Your task to perform on an android device: open a new tab in the chrome app Image 0: 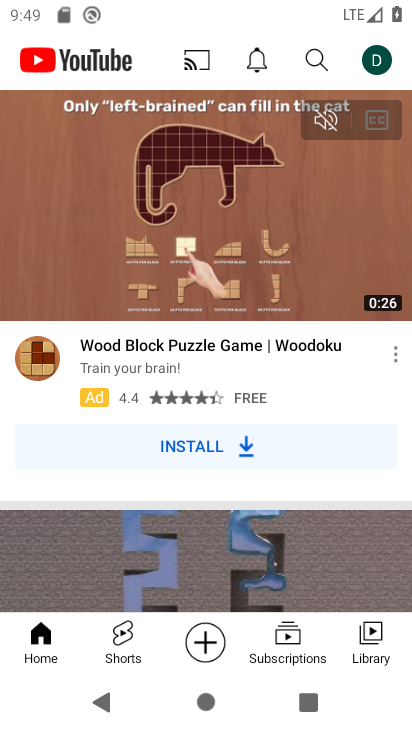
Step 0: press home button
Your task to perform on an android device: open a new tab in the chrome app Image 1: 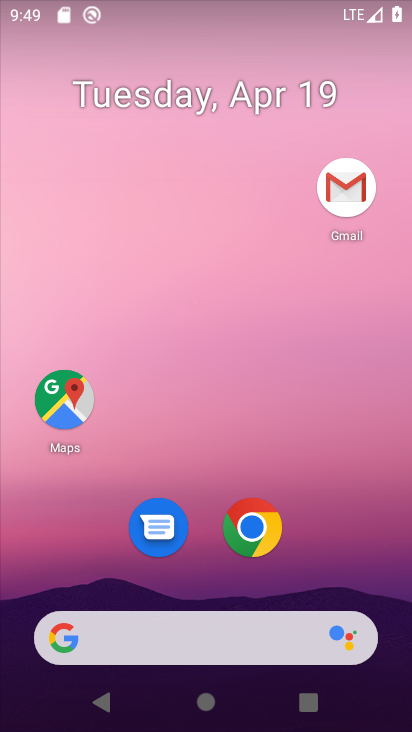
Step 1: click (266, 534)
Your task to perform on an android device: open a new tab in the chrome app Image 2: 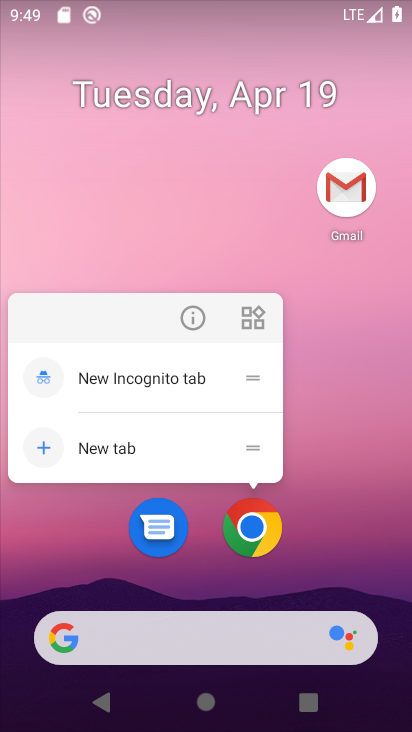
Step 2: click (263, 533)
Your task to perform on an android device: open a new tab in the chrome app Image 3: 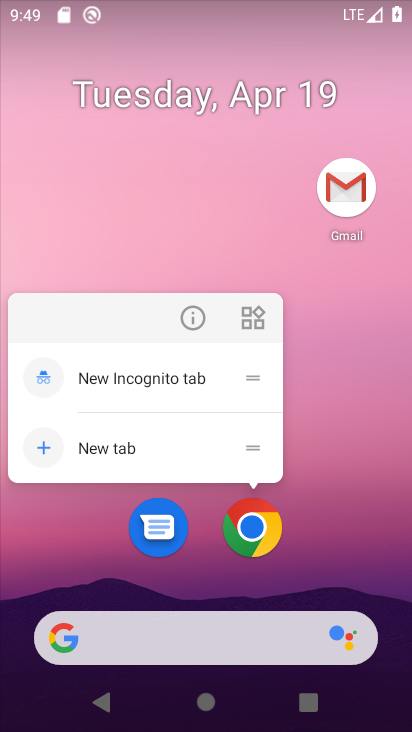
Step 3: click (260, 534)
Your task to perform on an android device: open a new tab in the chrome app Image 4: 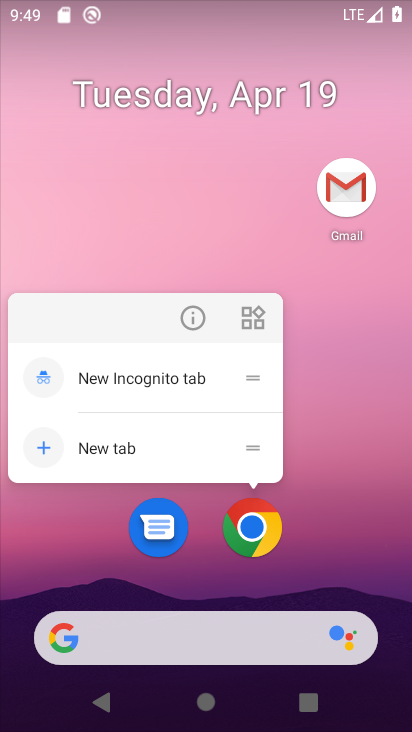
Step 4: click (276, 534)
Your task to perform on an android device: open a new tab in the chrome app Image 5: 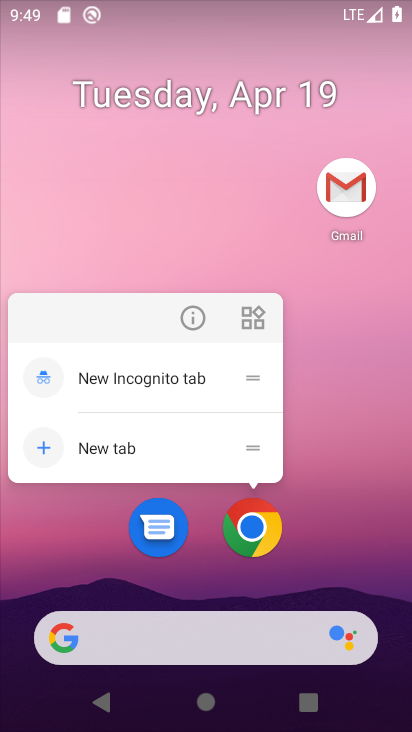
Step 5: click (275, 532)
Your task to perform on an android device: open a new tab in the chrome app Image 6: 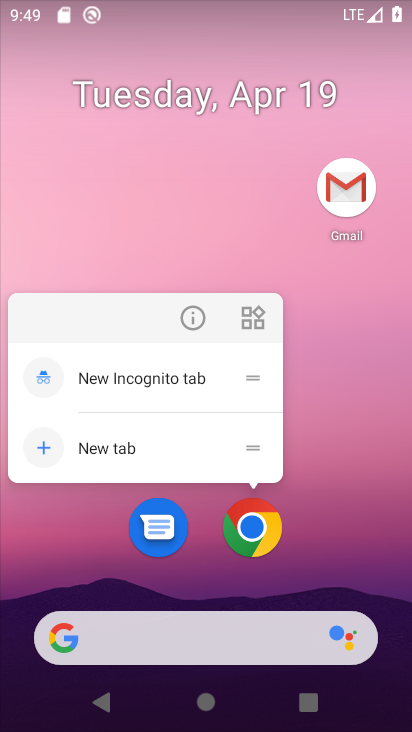
Step 6: drag from (375, 582) to (348, 164)
Your task to perform on an android device: open a new tab in the chrome app Image 7: 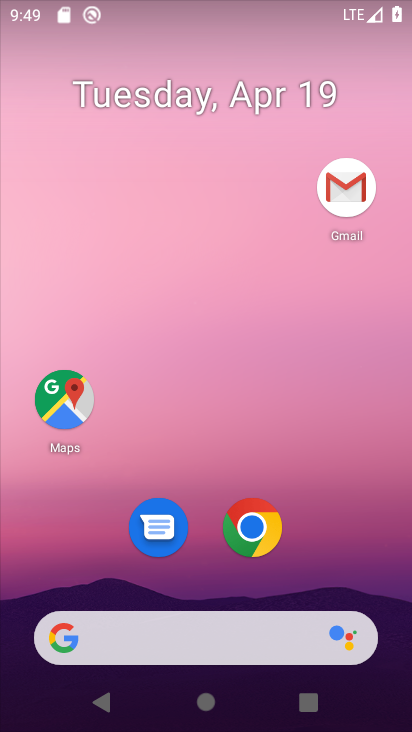
Step 7: drag from (357, 368) to (344, 116)
Your task to perform on an android device: open a new tab in the chrome app Image 8: 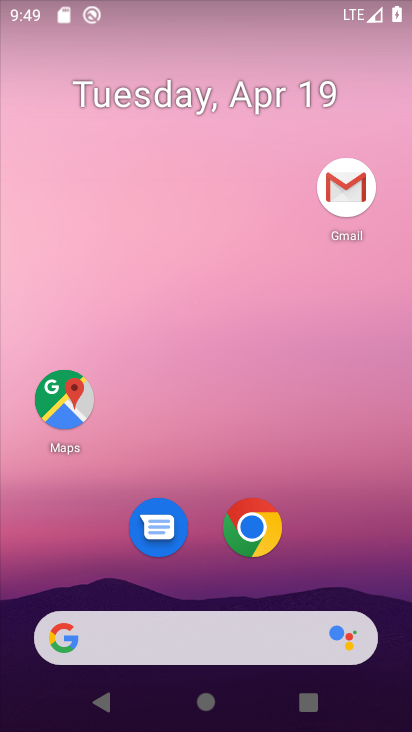
Step 8: drag from (340, 460) to (317, 88)
Your task to perform on an android device: open a new tab in the chrome app Image 9: 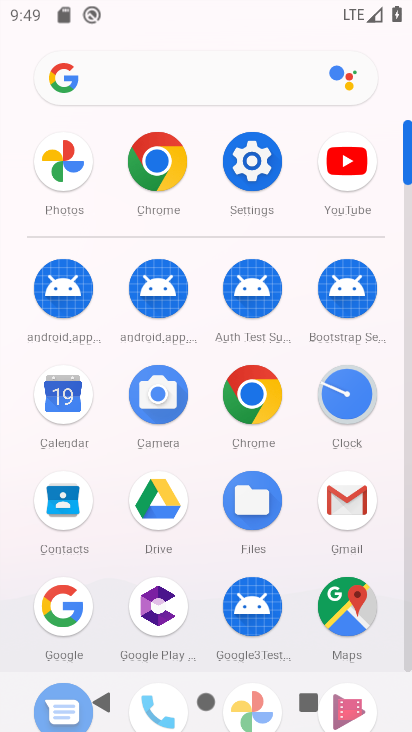
Step 9: click (158, 176)
Your task to perform on an android device: open a new tab in the chrome app Image 10: 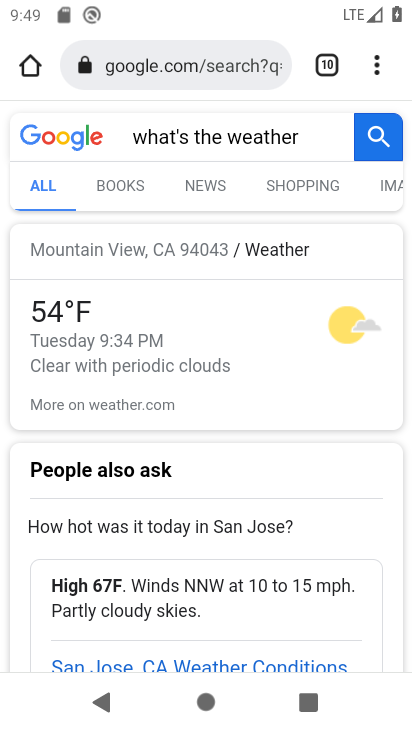
Step 10: click (328, 69)
Your task to perform on an android device: open a new tab in the chrome app Image 11: 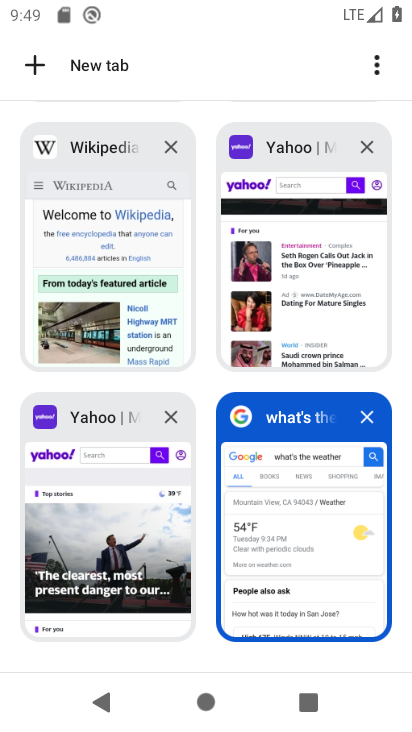
Step 11: click (35, 61)
Your task to perform on an android device: open a new tab in the chrome app Image 12: 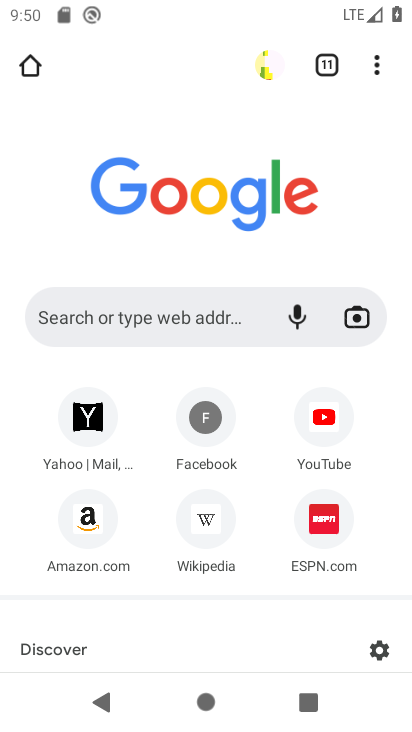
Step 12: task complete